Your task to perform on an android device: delete location history Image 0: 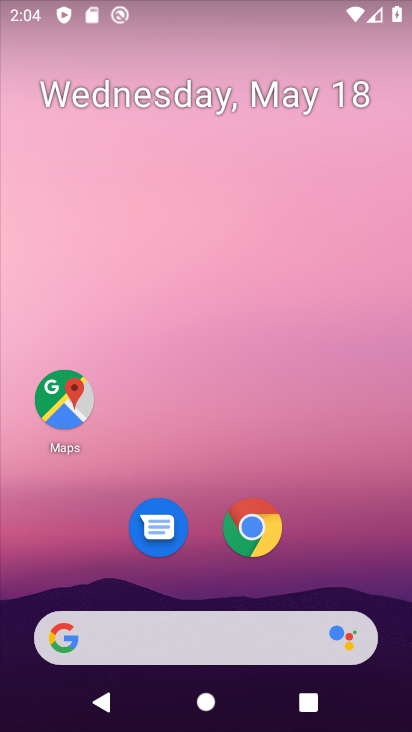
Step 0: drag from (79, 578) to (174, 217)
Your task to perform on an android device: delete location history Image 1: 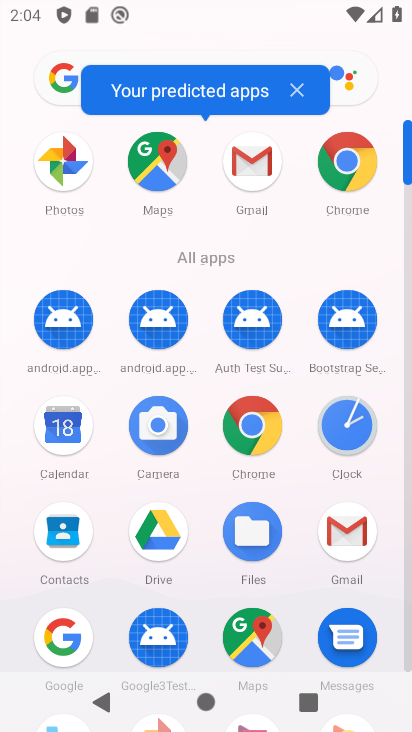
Step 1: drag from (216, 694) to (279, 439)
Your task to perform on an android device: delete location history Image 2: 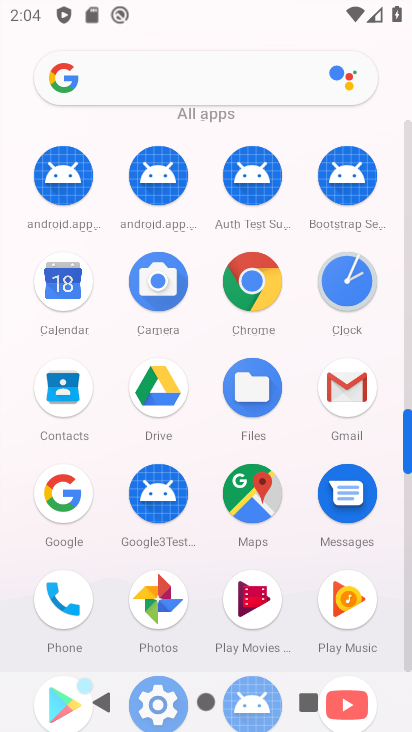
Step 2: drag from (164, 606) to (246, 350)
Your task to perform on an android device: delete location history Image 3: 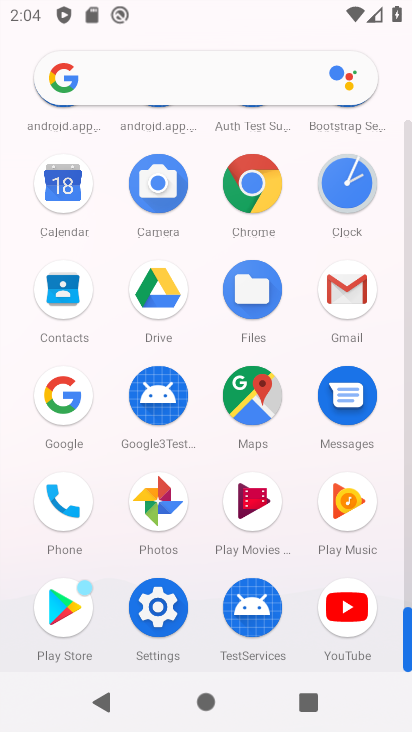
Step 3: click (170, 630)
Your task to perform on an android device: delete location history Image 4: 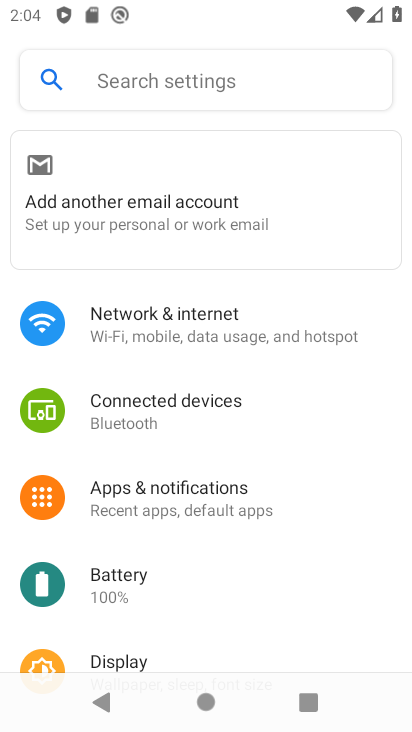
Step 4: drag from (159, 649) to (266, 353)
Your task to perform on an android device: delete location history Image 5: 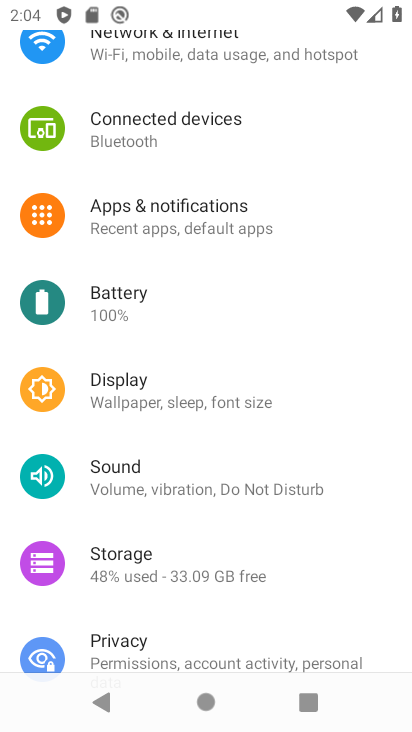
Step 5: drag from (226, 591) to (279, 259)
Your task to perform on an android device: delete location history Image 6: 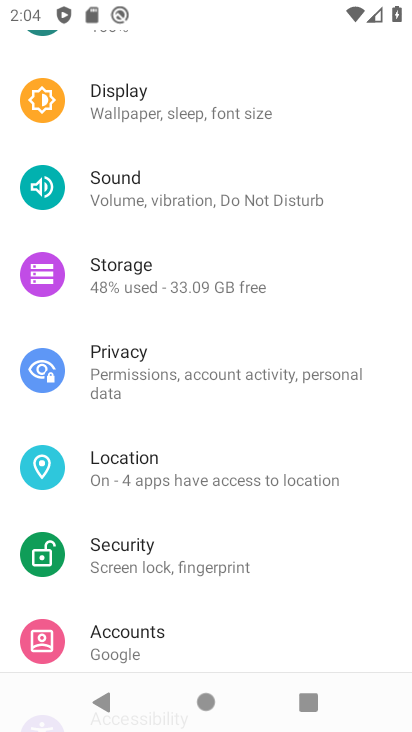
Step 6: click (199, 487)
Your task to perform on an android device: delete location history Image 7: 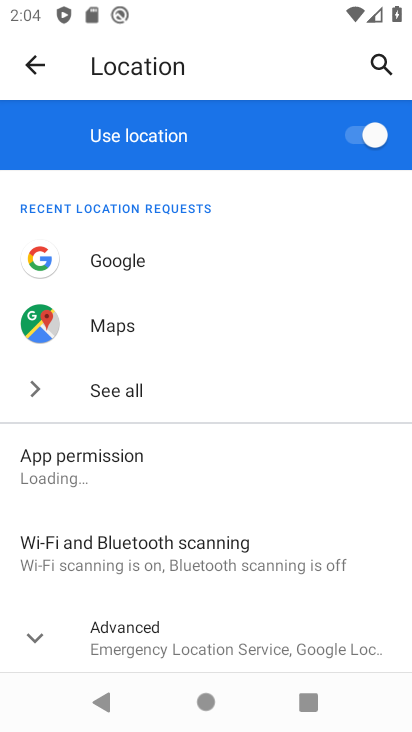
Step 7: drag from (163, 584) to (299, 214)
Your task to perform on an android device: delete location history Image 8: 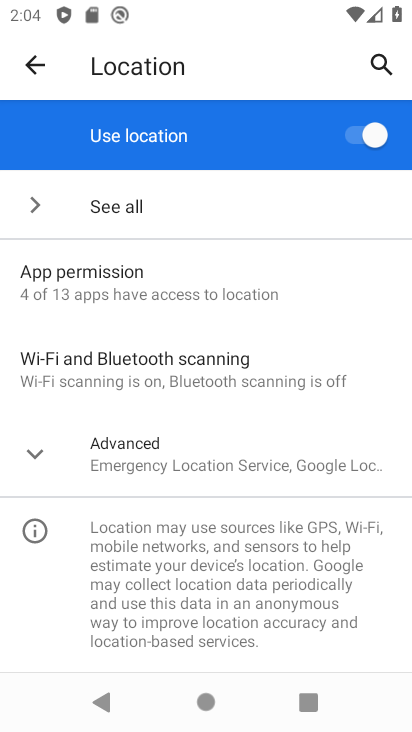
Step 8: click (195, 472)
Your task to perform on an android device: delete location history Image 9: 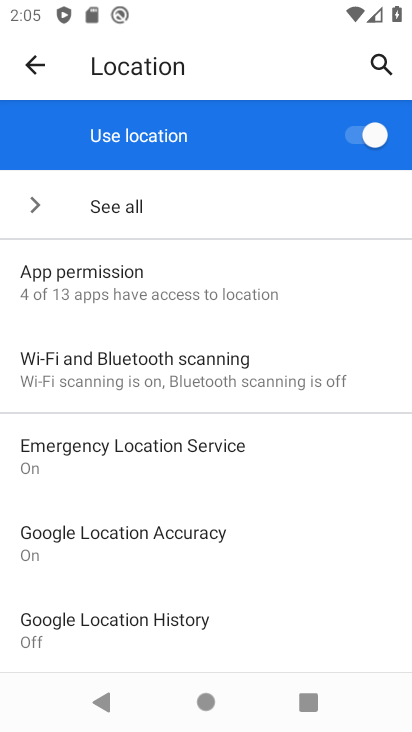
Step 9: drag from (176, 632) to (264, 437)
Your task to perform on an android device: delete location history Image 10: 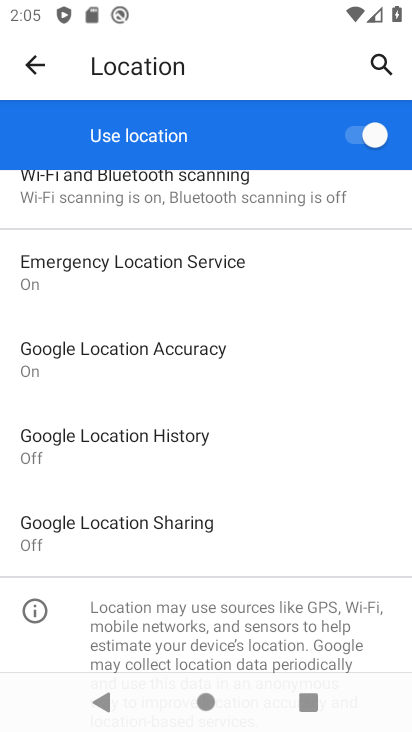
Step 10: click (214, 451)
Your task to perform on an android device: delete location history Image 11: 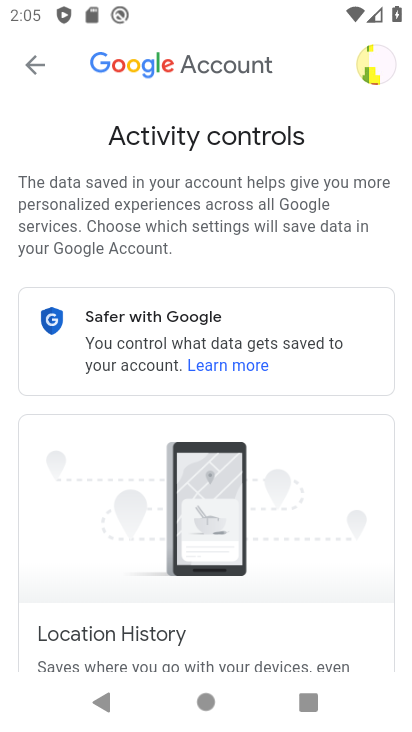
Step 11: drag from (193, 658) to (353, 153)
Your task to perform on an android device: delete location history Image 12: 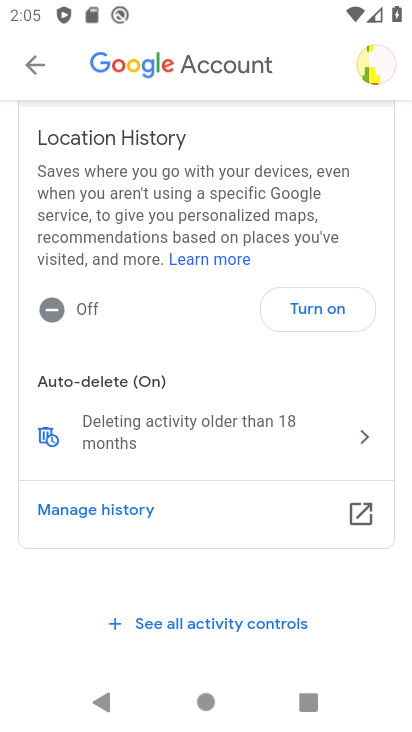
Step 12: click (141, 517)
Your task to perform on an android device: delete location history Image 13: 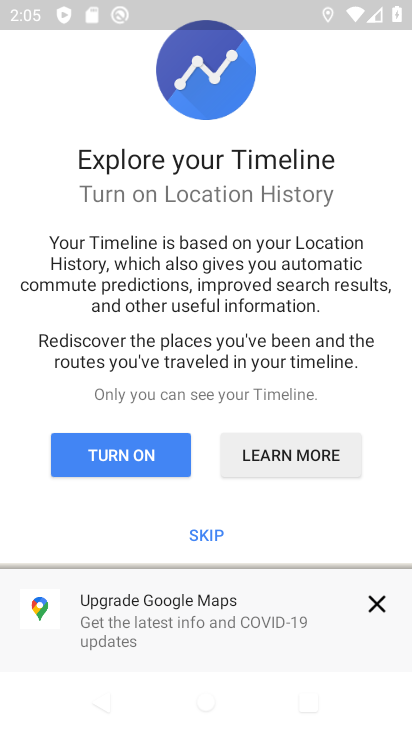
Step 13: click (219, 540)
Your task to perform on an android device: delete location history Image 14: 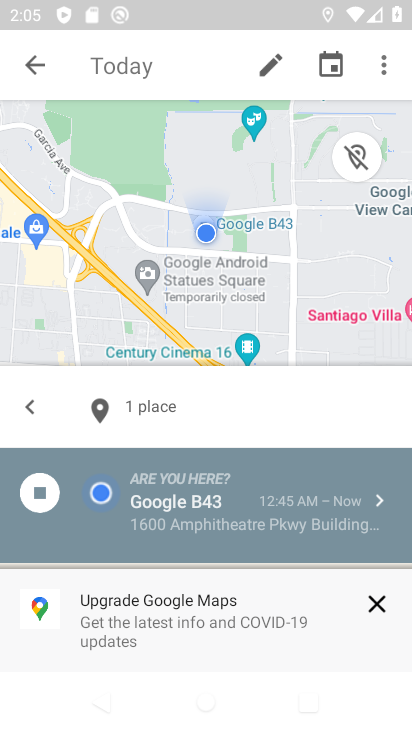
Step 14: click (391, 58)
Your task to perform on an android device: delete location history Image 15: 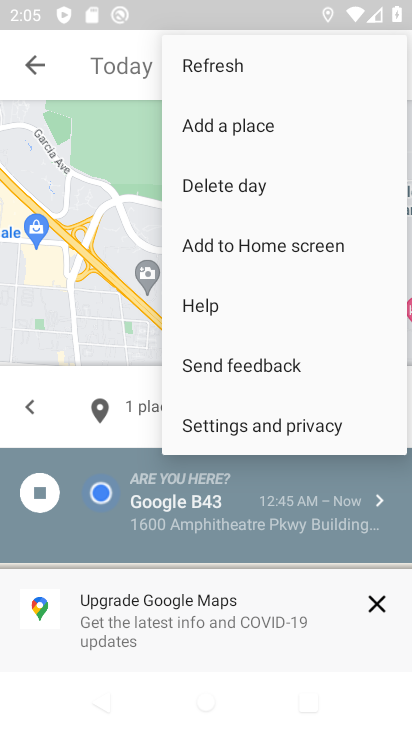
Step 15: click (292, 185)
Your task to perform on an android device: delete location history Image 16: 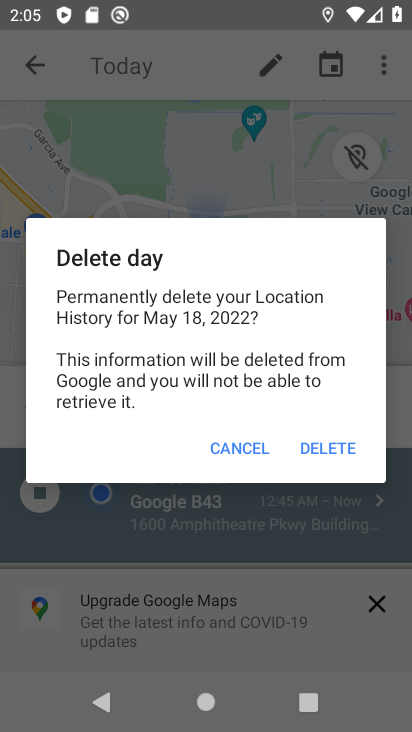
Step 16: click (317, 445)
Your task to perform on an android device: delete location history Image 17: 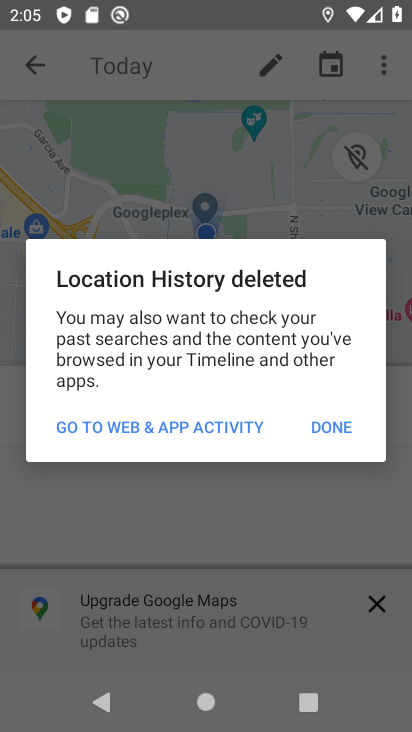
Step 17: click (333, 438)
Your task to perform on an android device: delete location history Image 18: 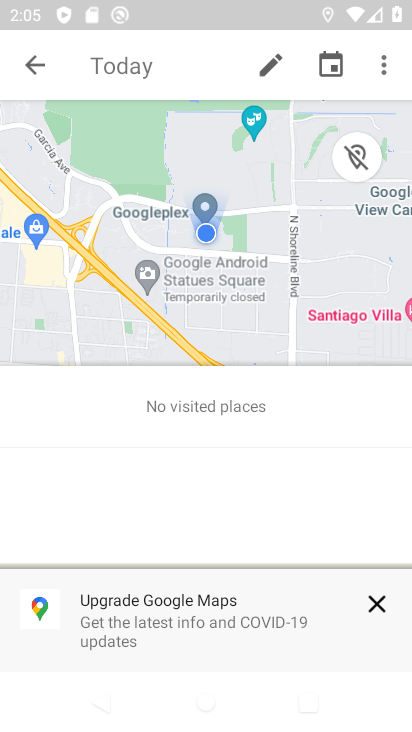
Step 18: click (400, 615)
Your task to perform on an android device: delete location history Image 19: 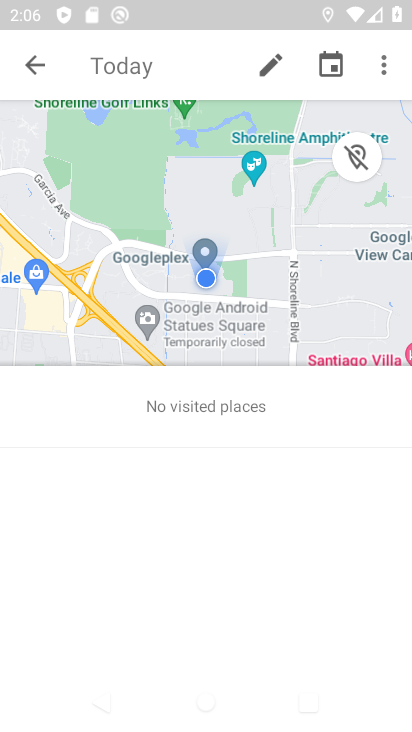
Step 19: task complete